Your task to perform on an android device: Open the calendar app, open the side menu, and click the "Day" option Image 0: 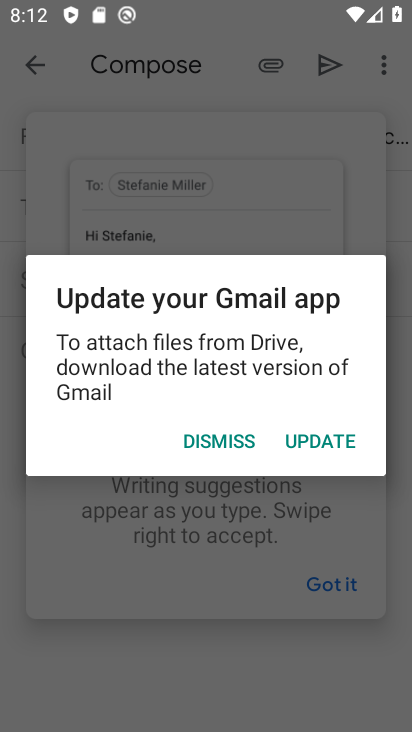
Step 0: press home button
Your task to perform on an android device: Open the calendar app, open the side menu, and click the "Day" option Image 1: 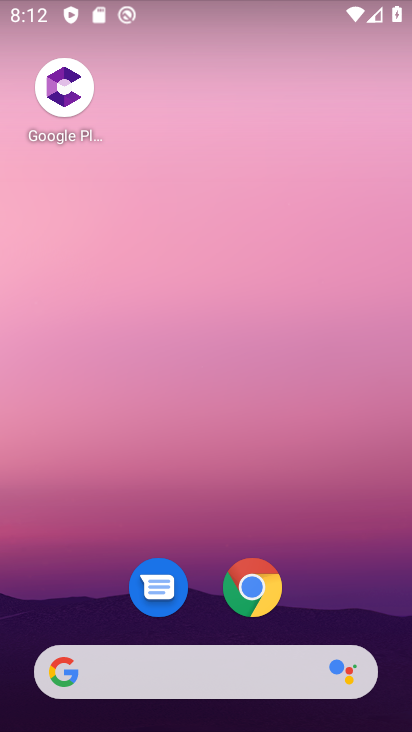
Step 1: drag from (393, 626) to (341, 155)
Your task to perform on an android device: Open the calendar app, open the side menu, and click the "Day" option Image 2: 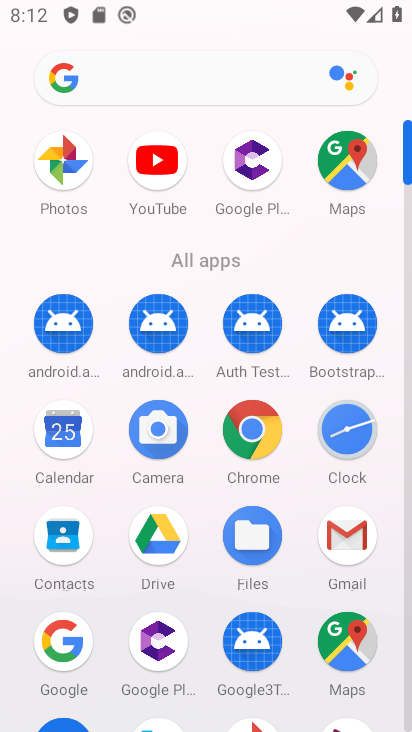
Step 2: click (60, 428)
Your task to perform on an android device: Open the calendar app, open the side menu, and click the "Day" option Image 3: 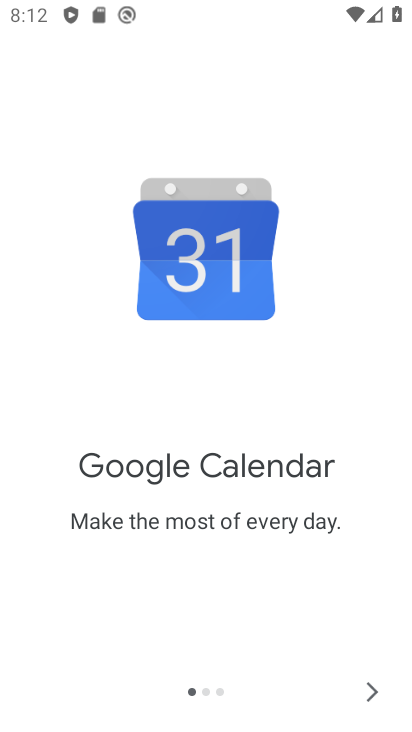
Step 3: click (371, 689)
Your task to perform on an android device: Open the calendar app, open the side menu, and click the "Day" option Image 4: 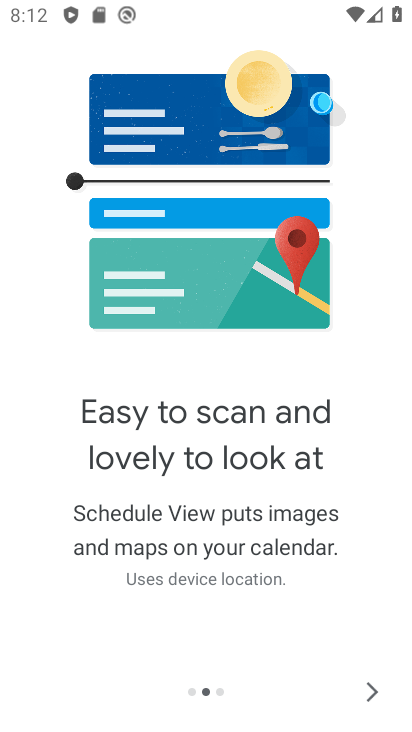
Step 4: click (371, 689)
Your task to perform on an android device: Open the calendar app, open the side menu, and click the "Day" option Image 5: 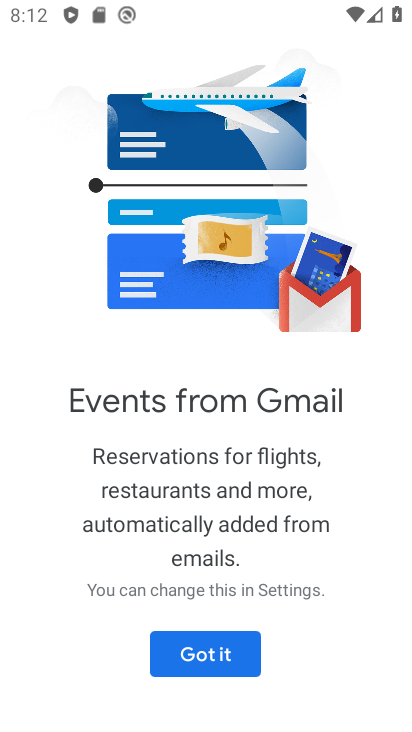
Step 5: click (371, 689)
Your task to perform on an android device: Open the calendar app, open the side menu, and click the "Day" option Image 6: 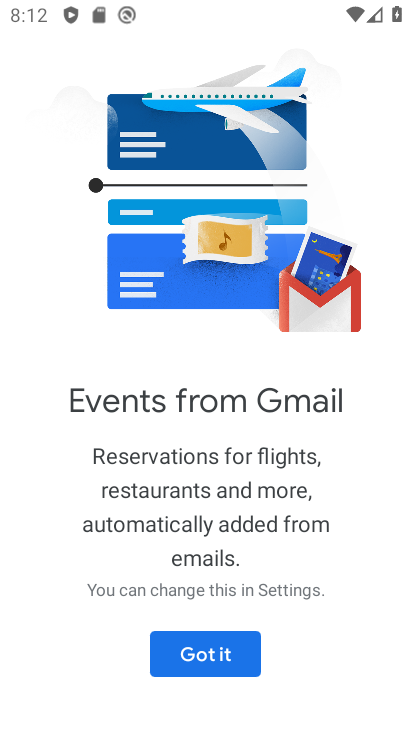
Step 6: click (206, 656)
Your task to perform on an android device: Open the calendar app, open the side menu, and click the "Day" option Image 7: 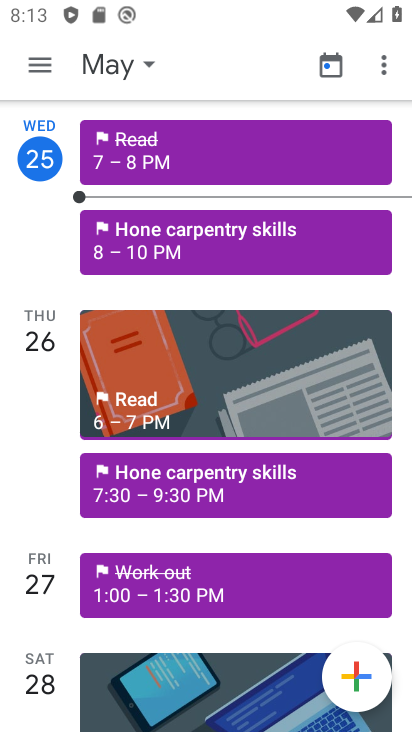
Step 7: click (43, 65)
Your task to perform on an android device: Open the calendar app, open the side menu, and click the "Day" option Image 8: 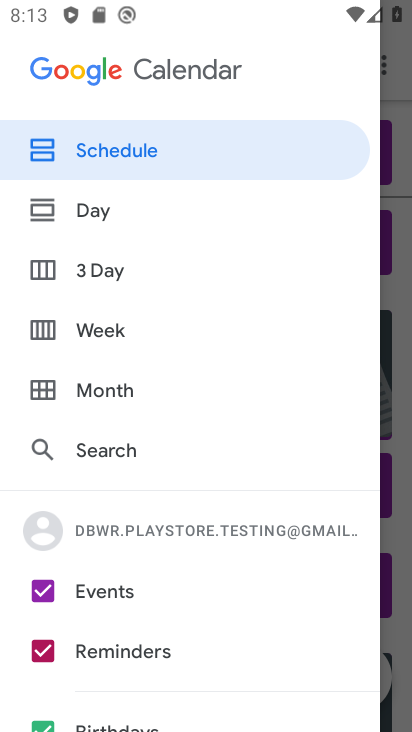
Step 8: click (89, 214)
Your task to perform on an android device: Open the calendar app, open the side menu, and click the "Day" option Image 9: 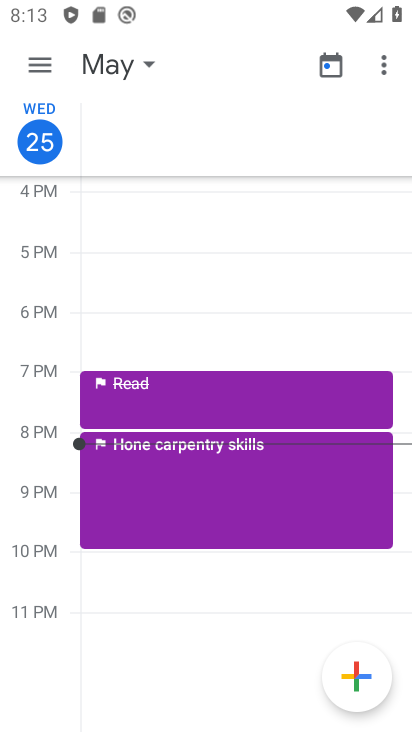
Step 9: task complete